Your task to perform on an android device: Open settings Image 0: 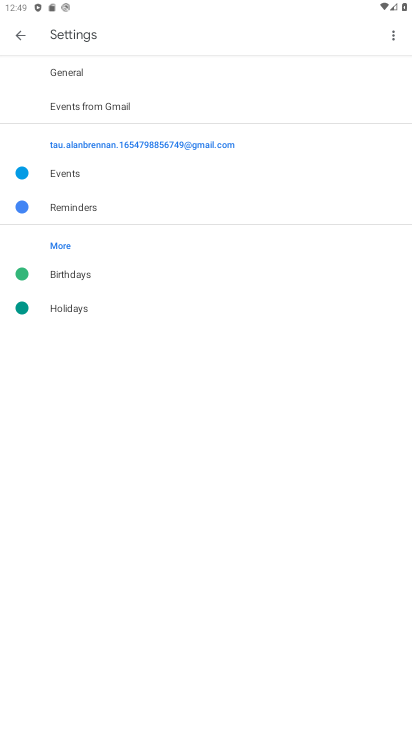
Step 0: press home button
Your task to perform on an android device: Open settings Image 1: 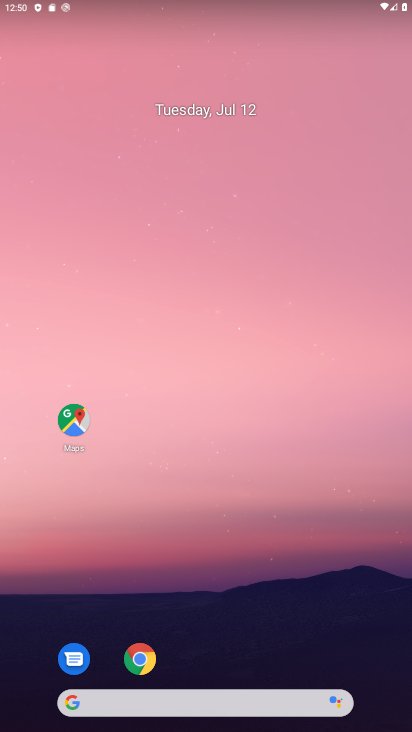
Step 1: drag from (207, 642) to (223, 142)
Your task to perform on an android device: Open settings Image 2: 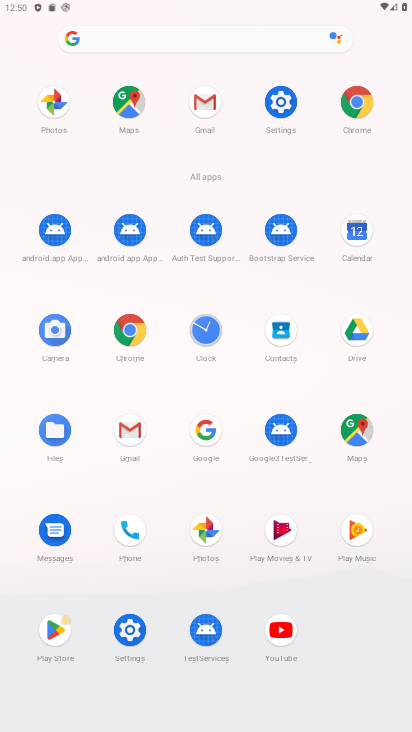
Step 2: click (270, 110)
Your task to perform on an android device: Open settings Image 3: 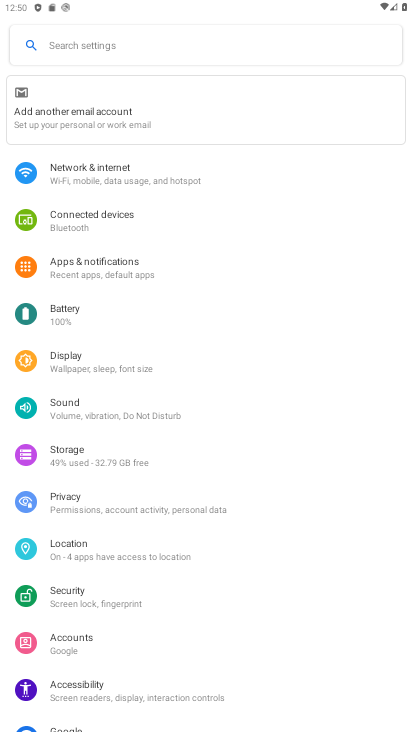
Step 3: task complete